Your task to perform on an android device: Go to ESPN.com Image 0: 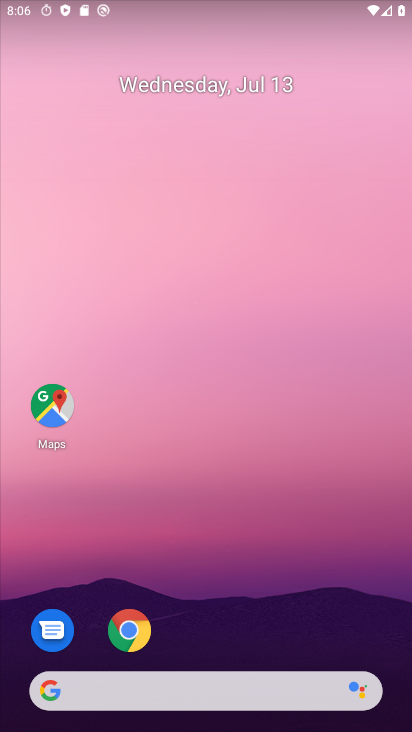
Step 0: drag from (180, 646) to (220, 277)
Your task to perform on an android device: Go to ESPN.com Image 1: 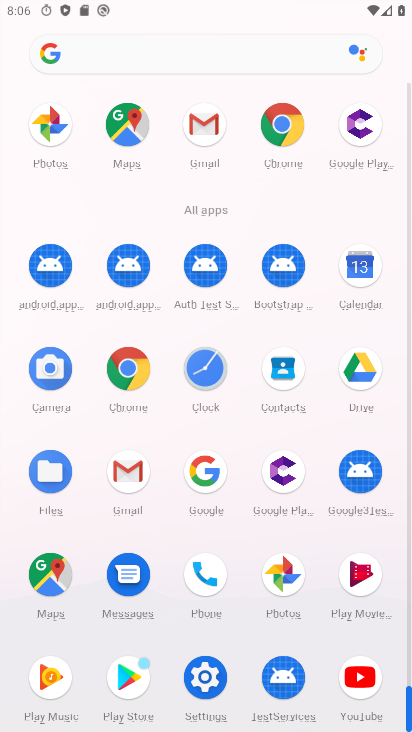
Step 1: drag from (154, 615) to (206, 394)
Your task to perform on an android device: Go to ESPN.com Image 2: 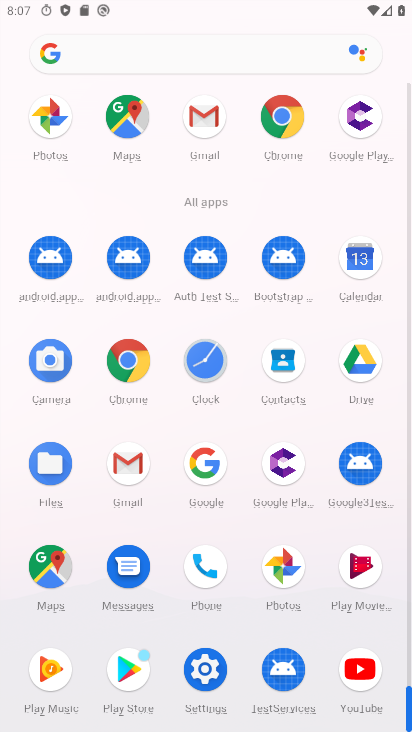
Step 2: click (123, 359)
Your task to perform on an android device: Go to ESPN.com Image 3: 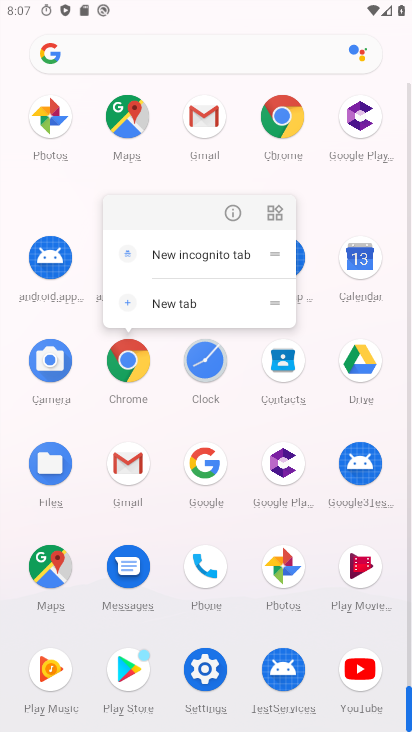
Step 3: click (231, 211)
Your task to perform on an android device: Go to ESPN.com Image 4: 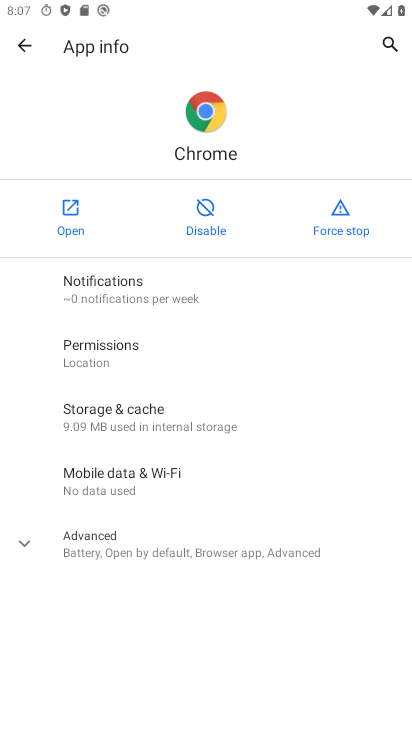
Step 4: click (67, 221)
Your task to perform on an android device: Go to ESPN.com Image 5: 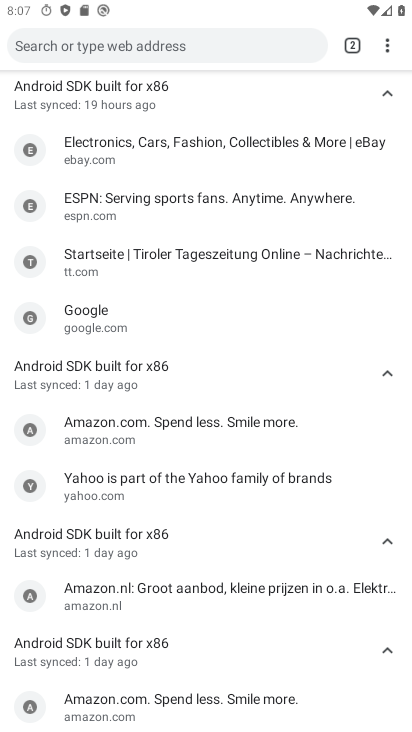
Step 5: click (161, 50)
Your task to perform on an android device: Go to ESPN.com Image 6: 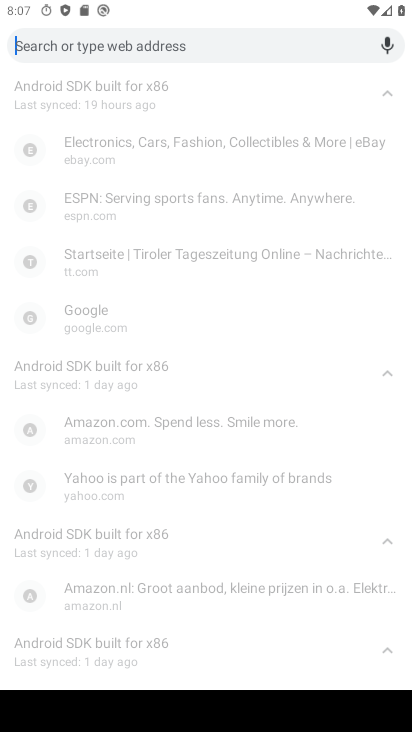
Step 6: type "espn.com"
Your task to perform on an android device: Go to ESPN.com Image 7: 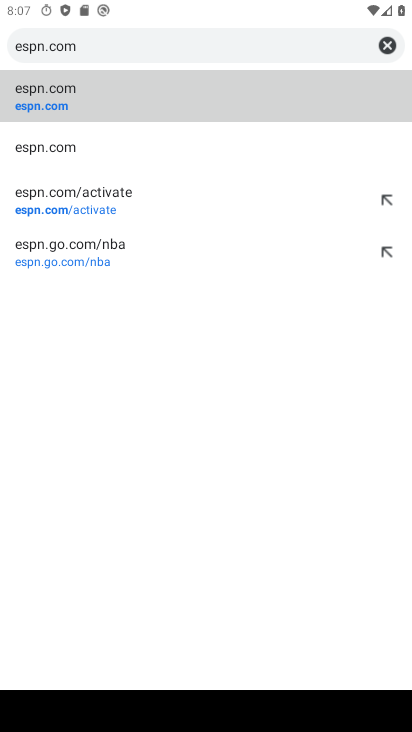
Step 7: click (43, 102)
Your task to perform on an android device: Go to ESPN.com Image 8: 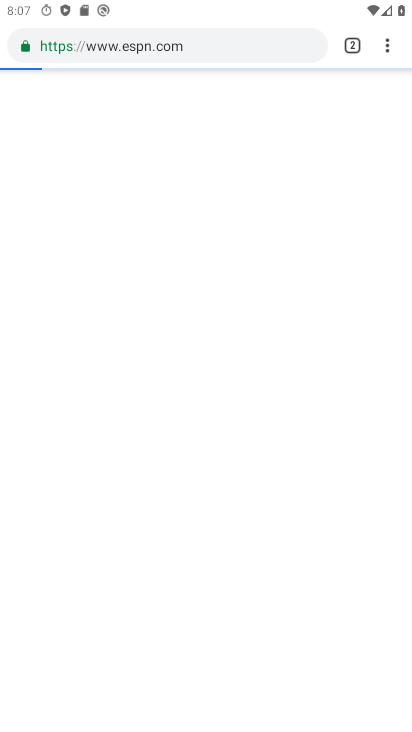
Step 8: drag from (225, 627) to (222, 354)
Your task to perform on an android device: Go to ESPN.com Image 9: 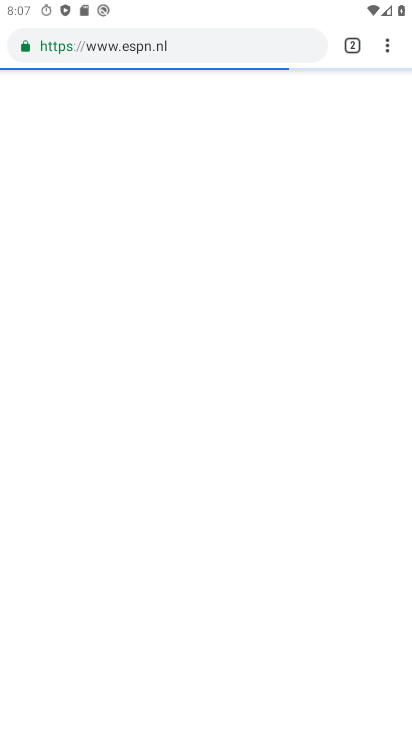
Step 9: drag from (188, 370) to (244, 676)
Your task to perform on an android device: Go to ESPN.com Image 10: 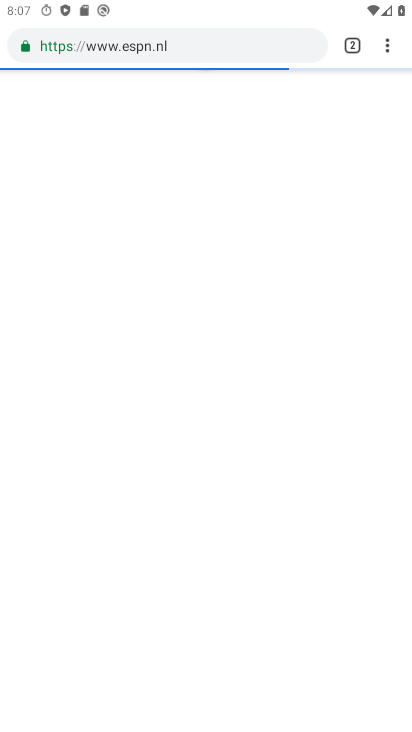
Step 10: click (313, 593)
Your task to perform on an android device: Go to ESPN.com Image 11: 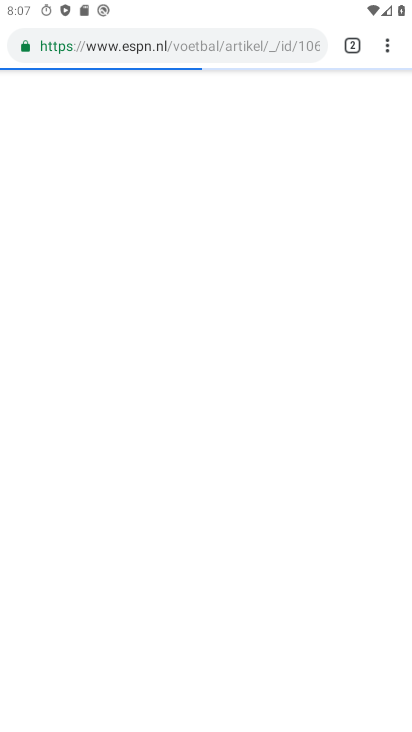
Step 11: task complete